Your task to perform on an android device: What's on my calendar today? Image 0: 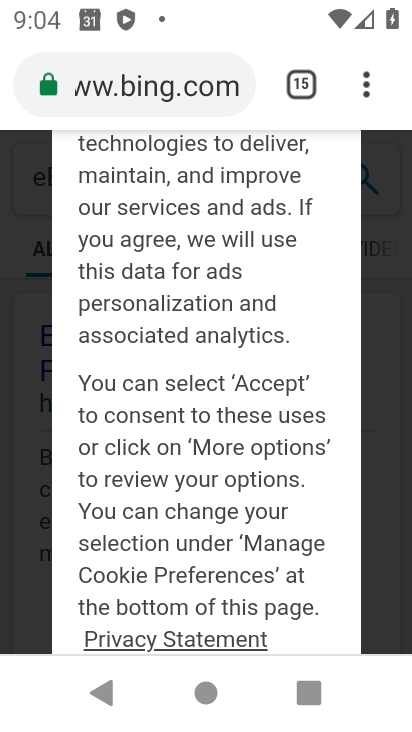
Step 0: click (351, 79)
Your task to perform on an android device: What's on my calendar today? Image 1: 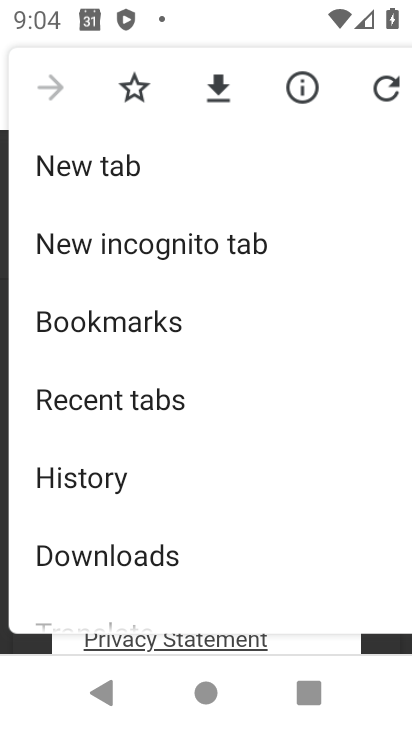
Step 1: click (134, 165)
Your task to perform on an android device: What's on my calendar today? Image 2: 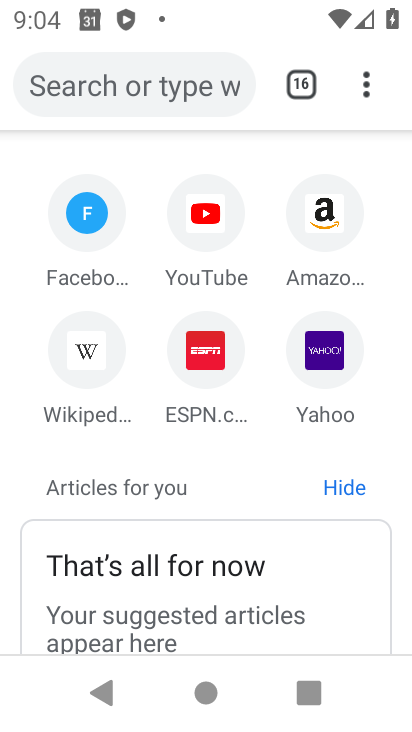
Step 2: click (129, 76)
Your task to perform on an android device: What's on my calendar today? Image 3: 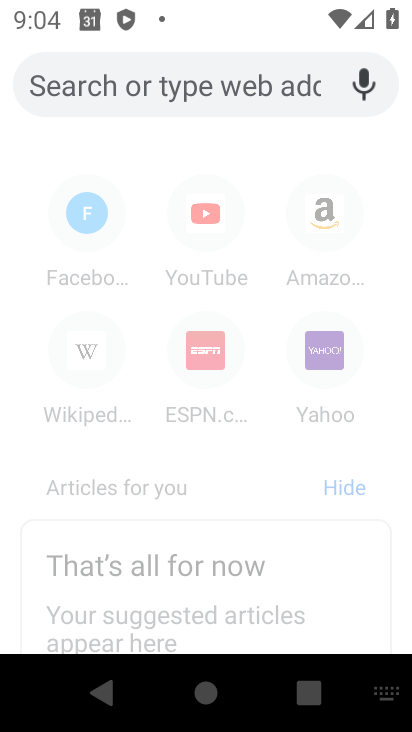
Step 3: type "What's on my calendar today?"
Your task to perform on an android device: What's on my calendar today? Image 4: 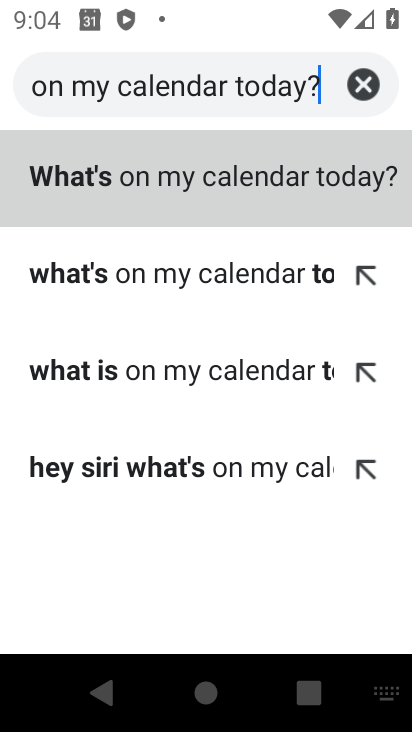
Step 4: click (147, 274)
Your task to perform on an android device: What's on my calendar today? Image 5: 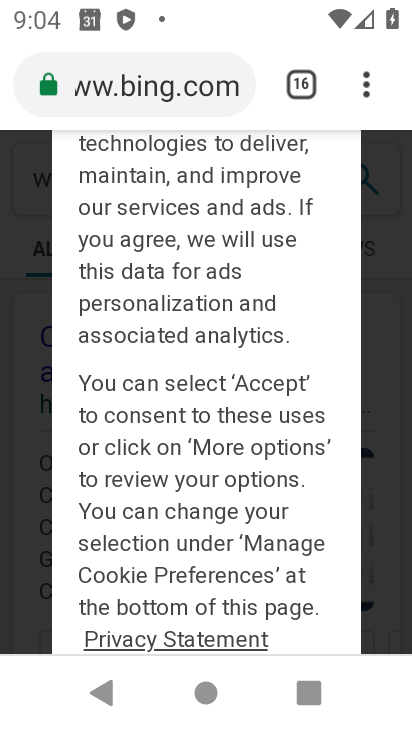
Step 5: task complete